Your task to perform on an android device: Search for sushi restaurants on Maps Image 0: 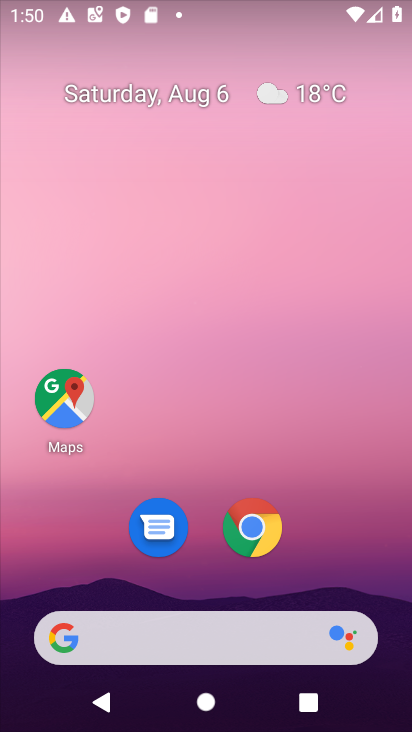
Step 0: drag from (224, 582) to (191, 69)
Your task to perform on an android device: Search for sushi restaurants on Maps Image 1: 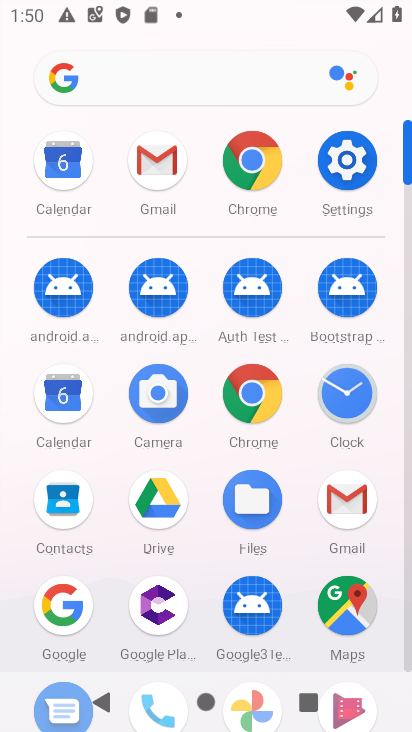
Step 1: click (349, 610)
Your task to perform on an android device: Search for sushi restaurants on Maps Image 2: 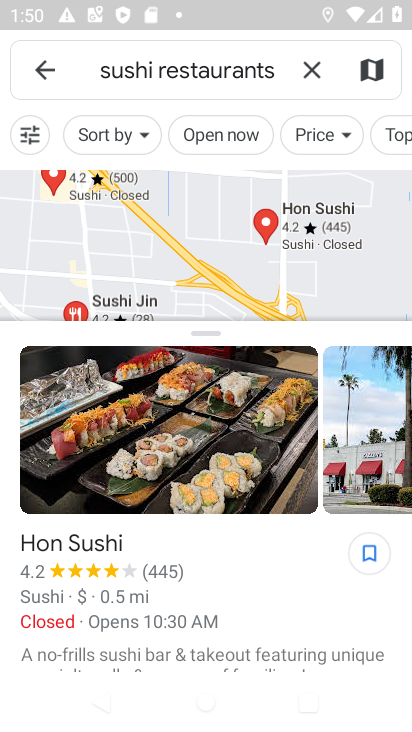
Step 2: task complete